Your task to perform on an android device: delete the emails in spam in the gmail app Image 0: 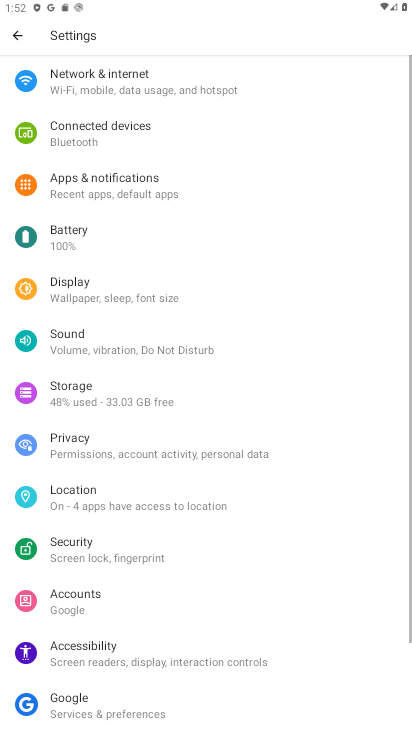
Step 0: press home button
Your task to perform on an android device: delete the emails in spam in the gmail app Image 1: 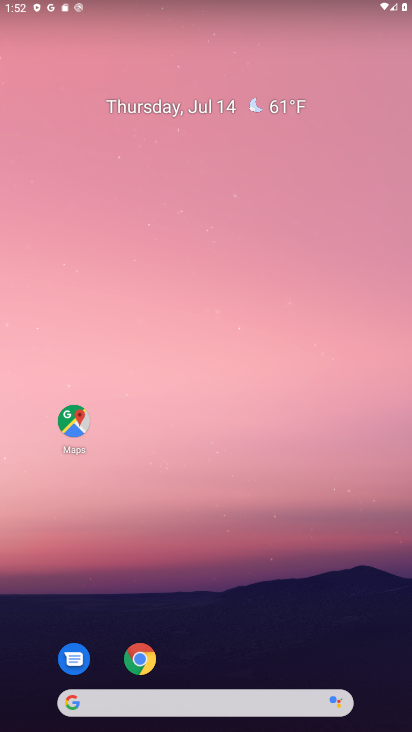
Step 1: drag from (174, 650) to (109, 26)
Your task to perform on an android device: delete the emails in spam in the gmail app Image 2: 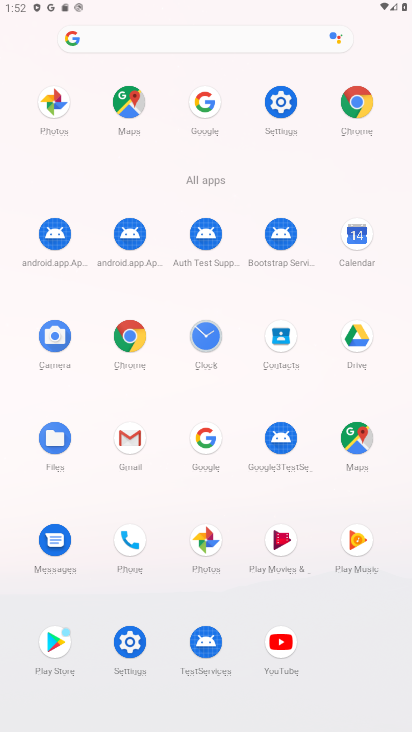
Step 2: click (137, 442)
Your task to perform on an android device: delete the emails in spam in the gmail app Image 3: 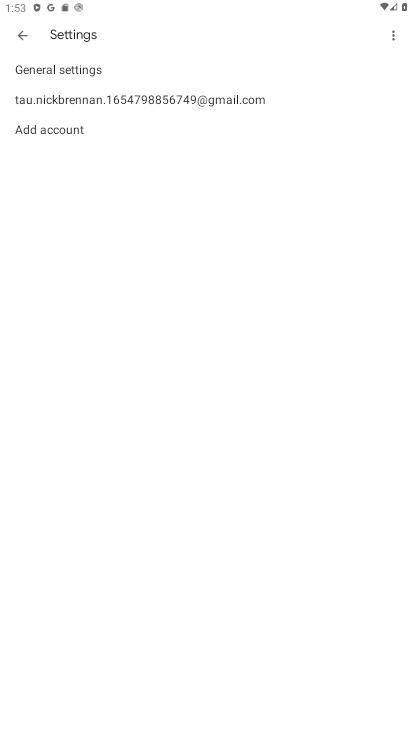
Step 3: click (10, 30)
Your task to perform on an android device: delete the emails in spam in the gmail app Image 4: 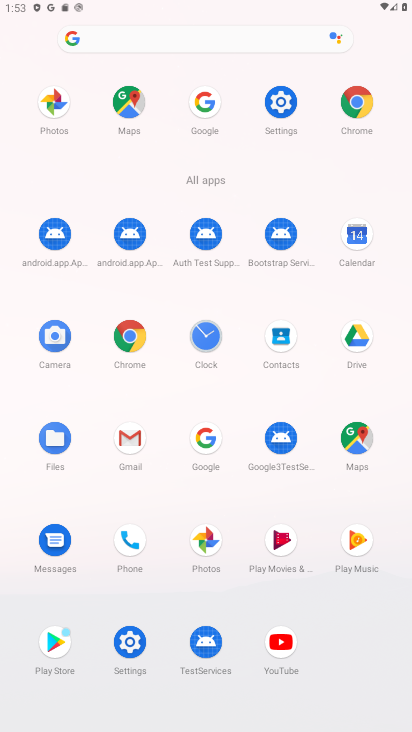
Step 4: click (129, 431)
Your task to perform on an android device: delete the emails in spam in the gmail app Image 5: 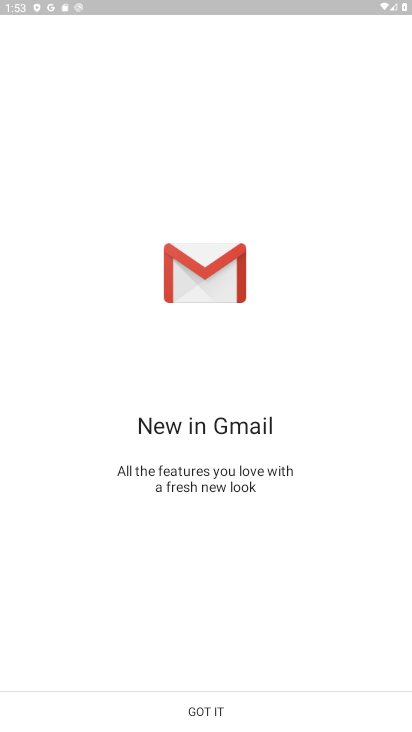
Step 5: click (220, 713)
Your task to perform on an android device: delete the emails in spam in the gmail app Image 6: 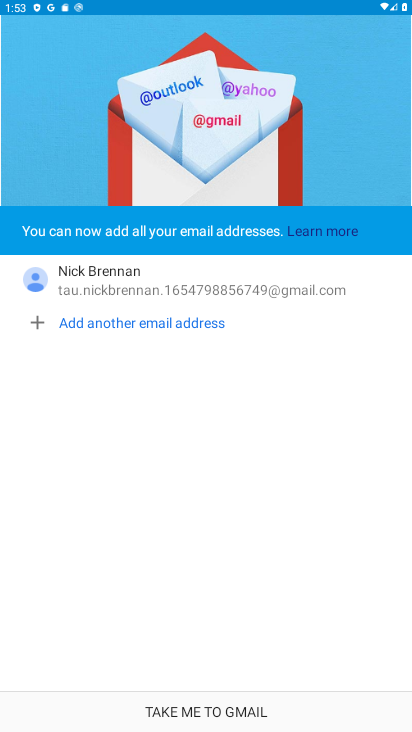
Step 6: click (223, 701)
Your task to perform on an android device: delete the emails in spam in the gmail app Image 7: 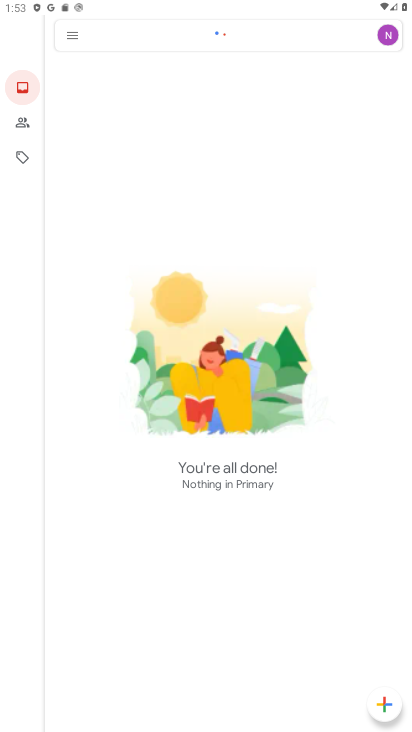
Step 7: click (71, 32)
Your task to perform on an android device: delete the emails in spam in the gmail app Image 8: 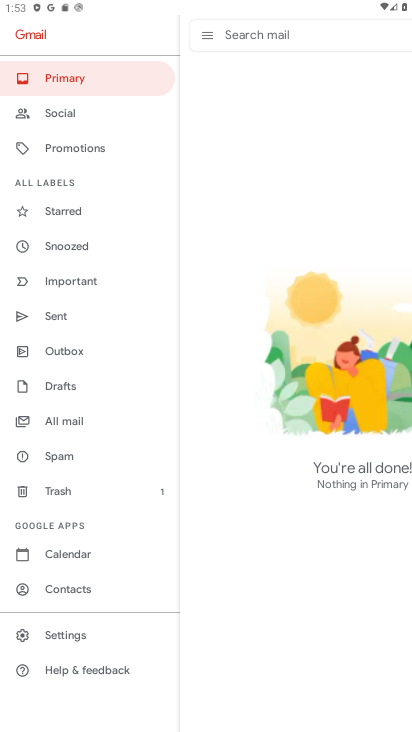
Step 8: click (72, 459)
Your task to perform on an android device: delete the emails in spam in the gmail app Image 9: 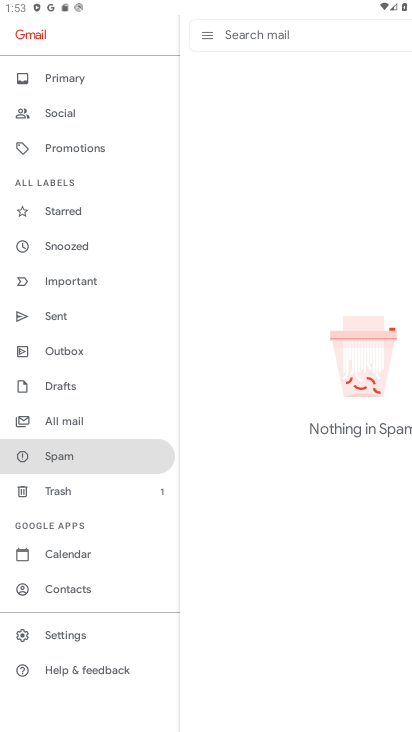
Step 9: task complete